Your task to perform on an android device: turn smart compose on in the gmail app Image 0: 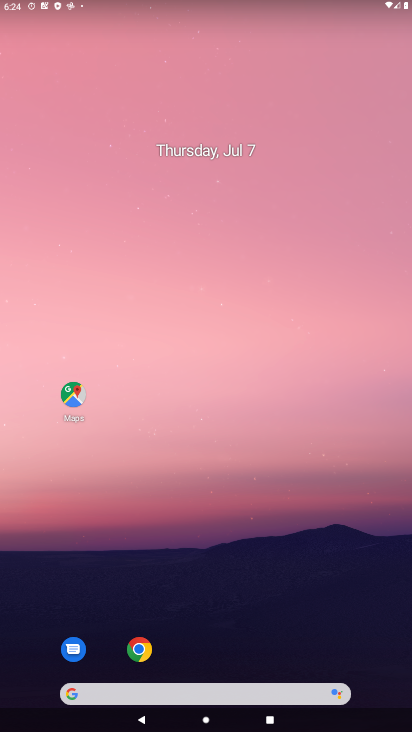
Step 0: drag from (393, 703) to (212, 0)
Your task to perform on an android device: turn smart compose on in the gmail app Image 1: 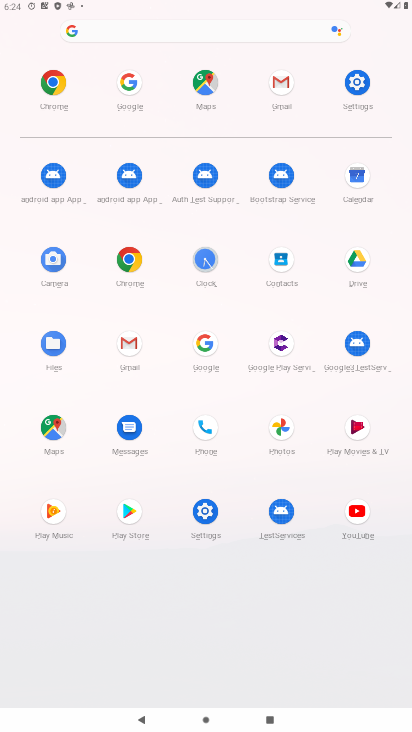
Step 1: click (283, 95)
Your task to perform on an android device: turn smart compose on in the gmail app Image 2: 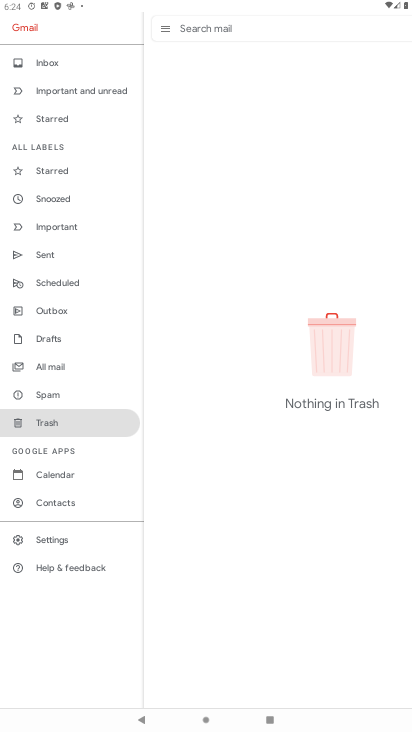
Step 2: click (62, 548)
Your task to perform on an android device: turn smart compose on in the gmail app Image 3: 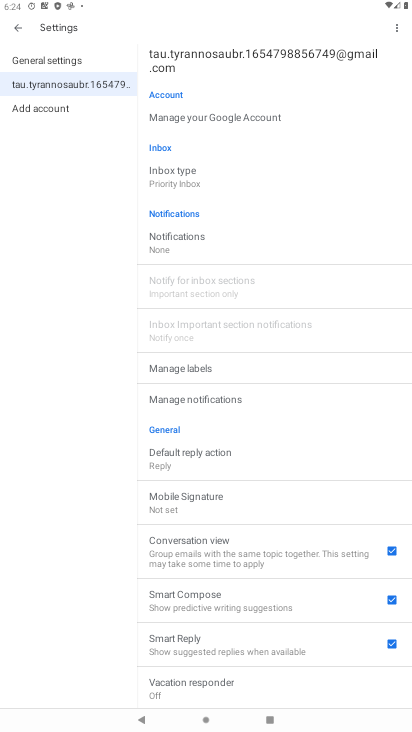
Step 3: task complete